Your task to perform on an android device: Open my contact list Image 0: 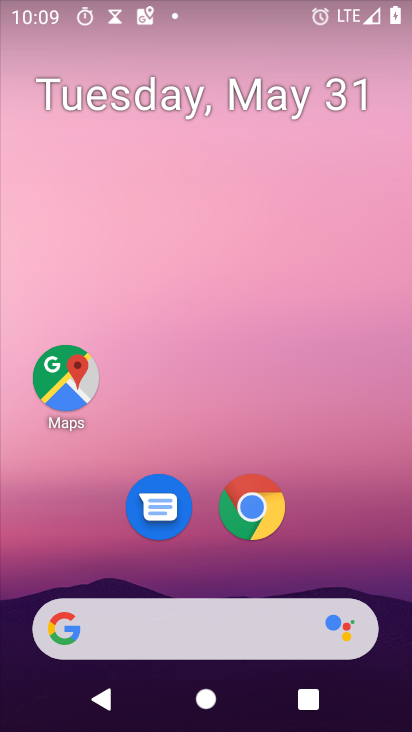
Step 0: drag from (264, 724) to (243, 159)
Your task to perform on an android device: Open my contact list Image 1: 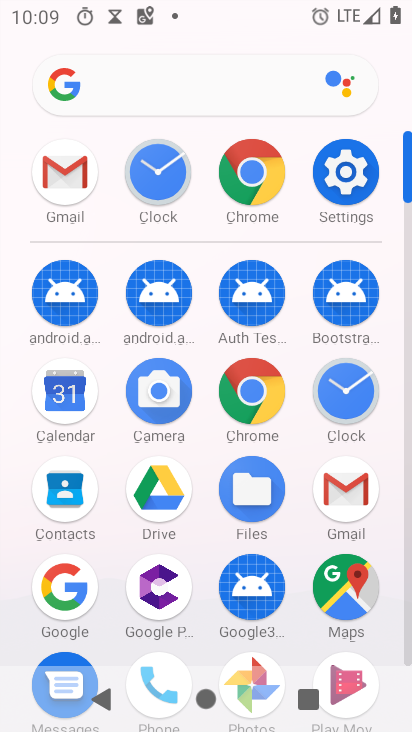
Step 1: drag from (69, 261) to (94, 171)
Your task to perform on an android device: Open my contact list Image 2: 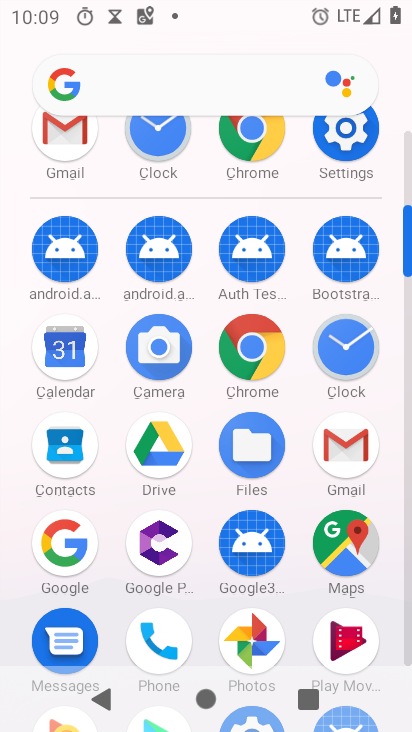
Step 2: click (163, 625)
Your task to perform on an android device: Open my contact list Image 3: 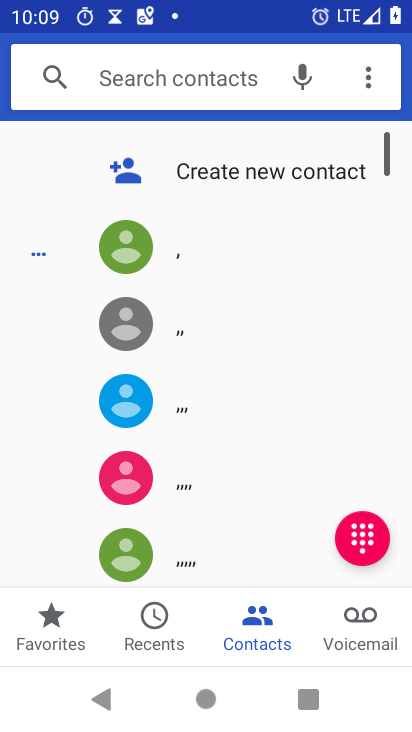
Step 3: task complete